Your task to perform on an android device: Open internet settings Image 0: 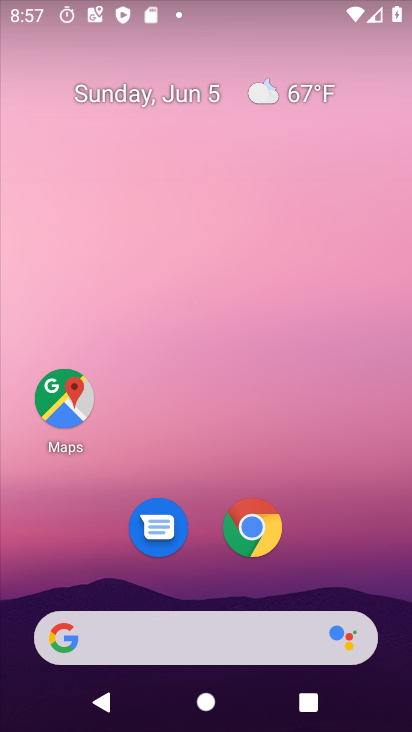
Step 0: drag from (238, 728) to (215, 28)
Your task to perform on an android device: Open internet settings Image 1: 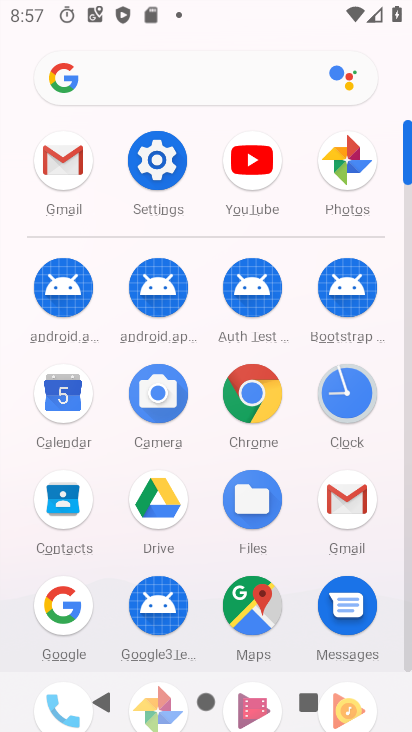
Step 1: click (161, 151)
Your task to perform on an android device: Open internet settings Image 2: 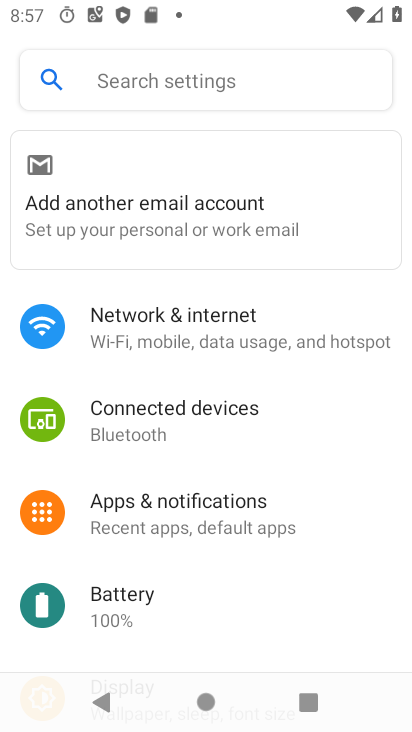
Step 2: click (162, 333)
Your task to perform on an android device: Open internet settings Image 3: 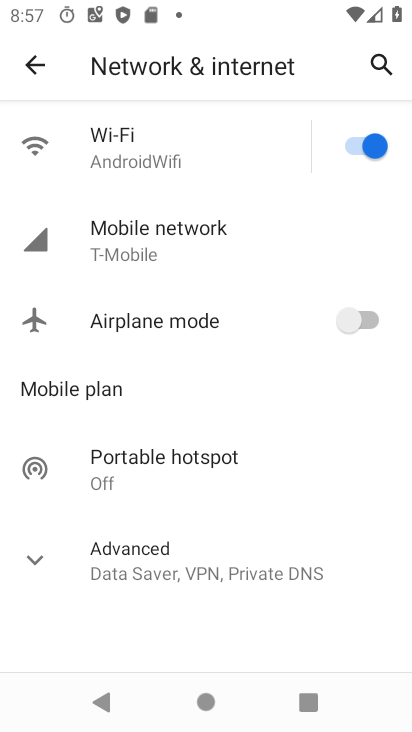
Step 3: task complete